Your task to perform on an android device: Open accessibility settings Image 0: 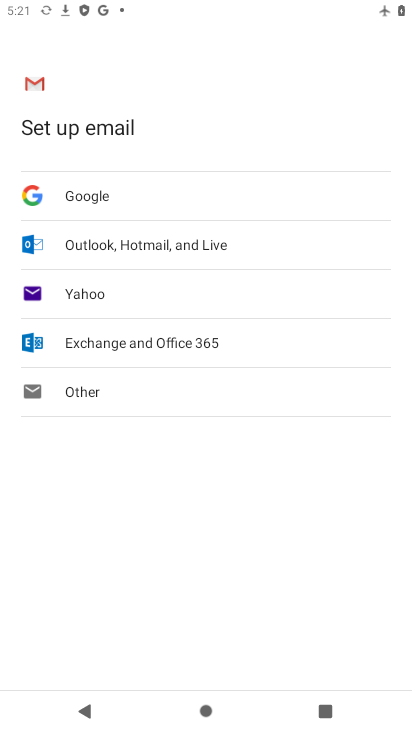
Step 0: press home button
Your task to perform on an android device: Open accessibility settings Image 1: 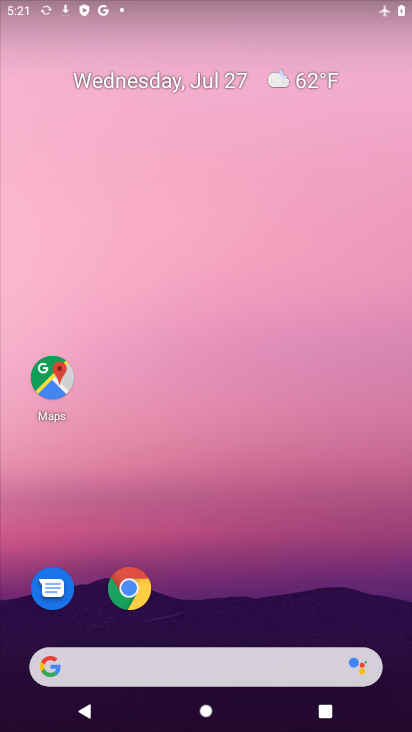
Step 1: drag from (191, 554) to (191, 270)
Your task to perform on an android device: Open accessibility settings Image 2: 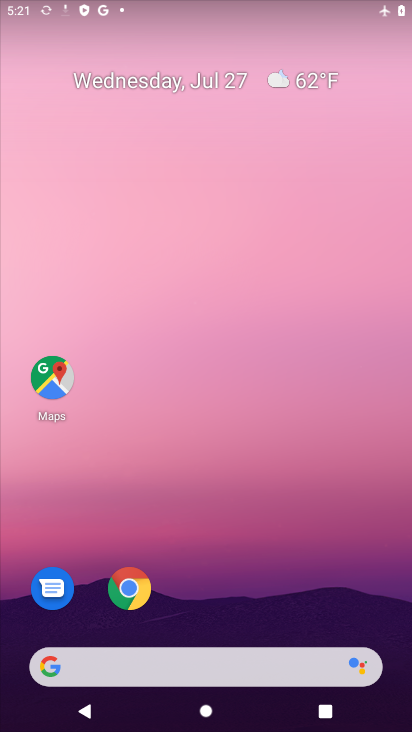
Step 2: drag from (212, 580) to (212, 38)
Your task to perform on an android device: Open accessibility settings Image 3: 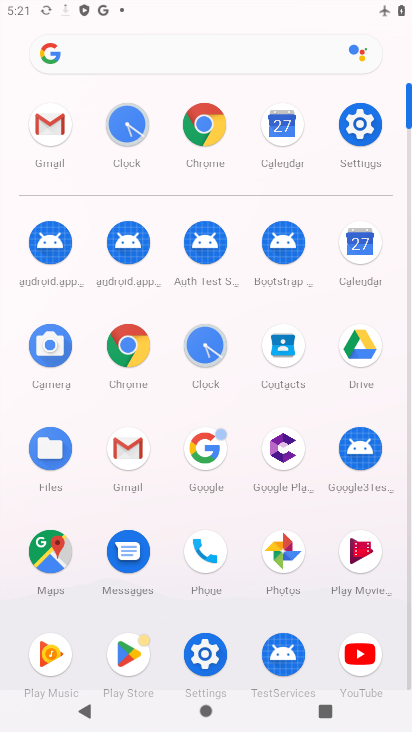
Step 3: click (360, 124)
Your task to perform on an android device: Open accessibility settings Image 4: 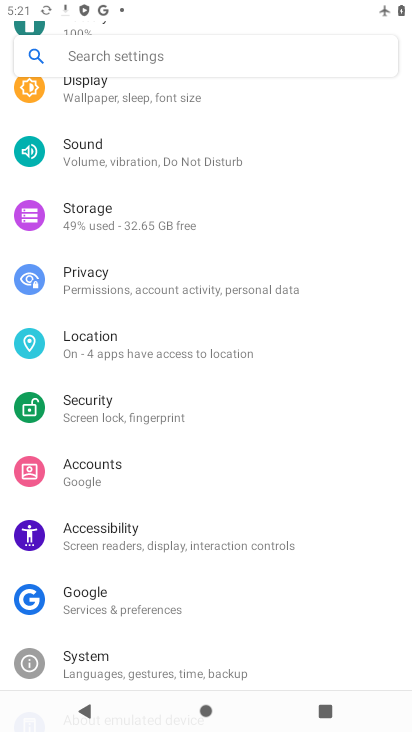
Step 4: click (80, 540)
Your task to perform on an android device: Open accessibility settings Image 5: 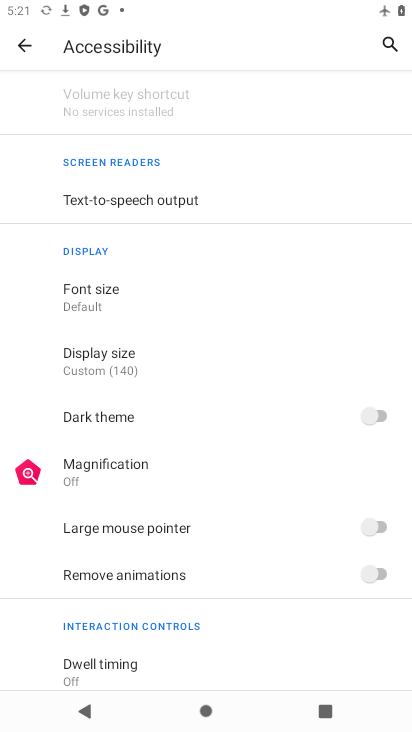
Step 5: task complete